Your task to perform on an android device: find which apps use the phone's location Image 0: 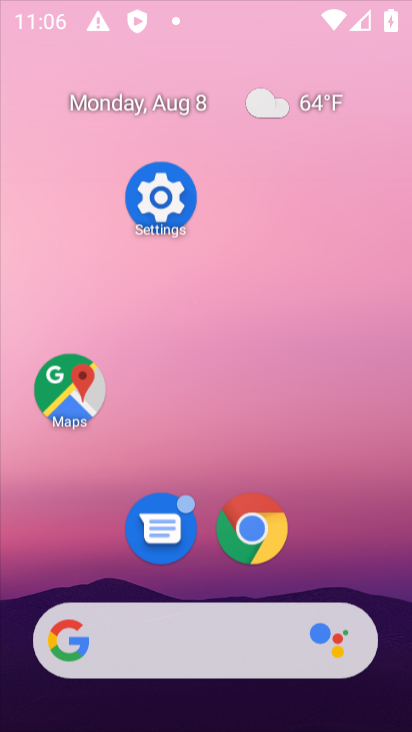
Step 0: drag from (165, 146) to (69, 119)
Your task to perform on an android device: find which apps use the phone's location Image 1: 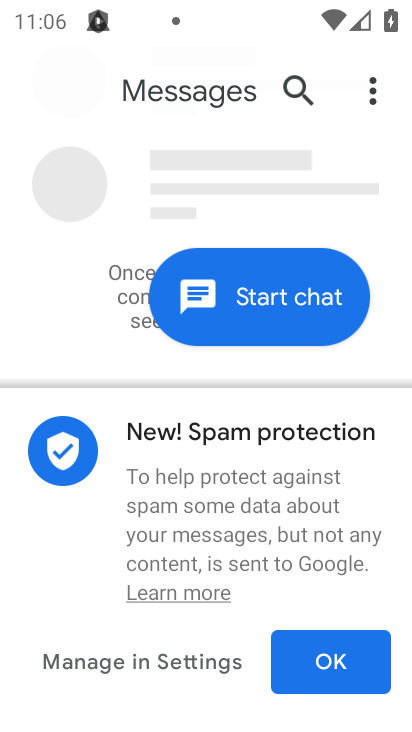
Step 1: drag from (209, 539) to (126, 15)
Your task to perform on an android device: find which apps use the phone's location Image 2: 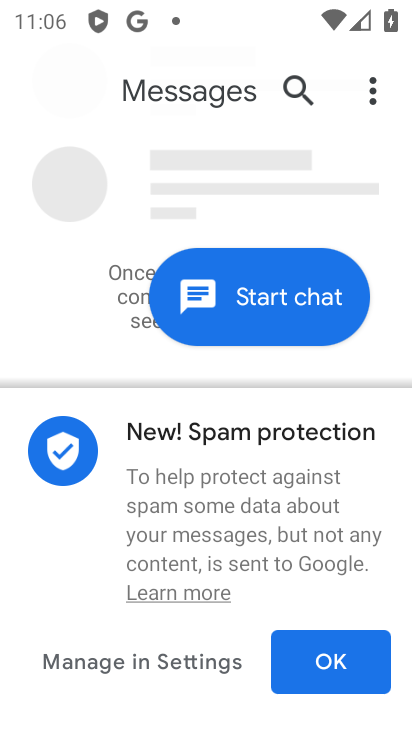
Step 2: drag from (239, 448) to (249, 150)
Your task to perform on an android device: find which apps use the phone's location Image 3: 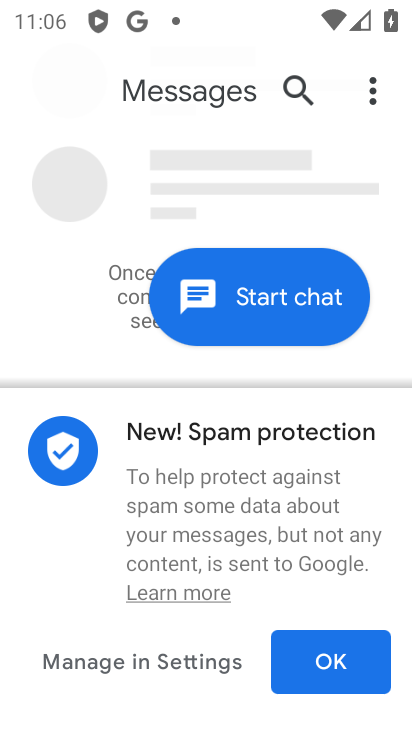
Step 3: press back button
Your task to perform on an android device: find which apps use the phone's location Image 4: 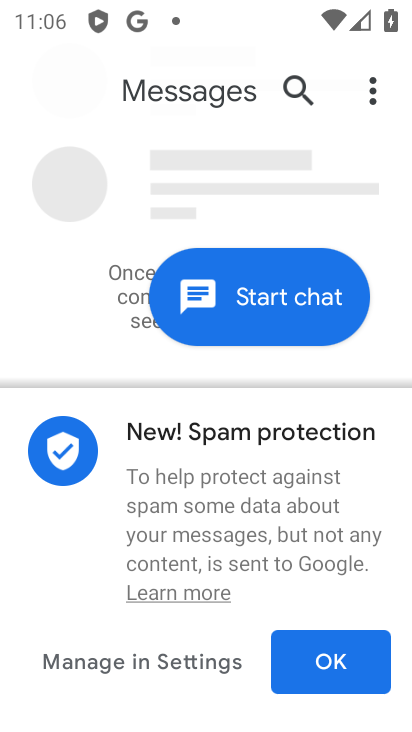
Step 4: press back button
Your task to perform on an android device: find which apps use the phone's location Image 5: 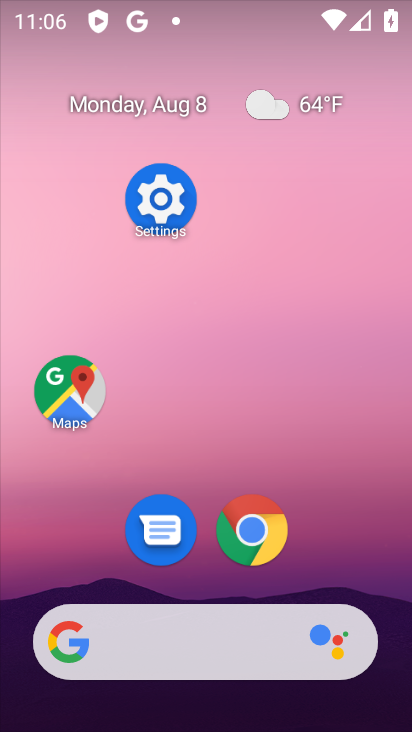
Step 5: drag from (265, 692) to (210, 302)
Your task to perform on an android device: find which apps use the phone's location Image 6: 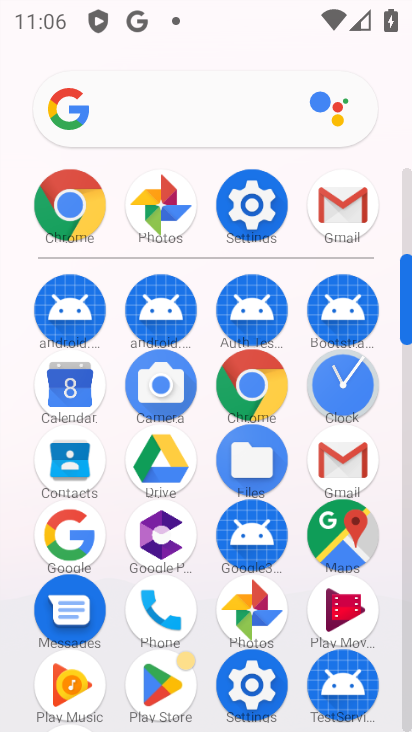
Step 6: click (243, 215)
Your task to perform on an android device: find which apps use the phone's location Image 7: 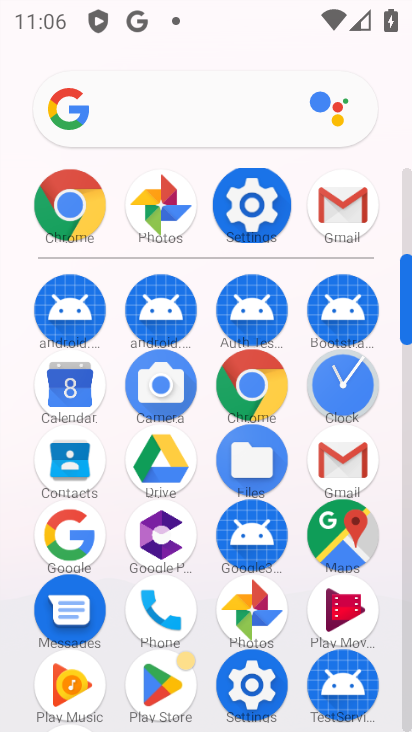
Step 7: click (242, 213)
Your task to perform on an android device: find which apps use the phone's location Image 8: 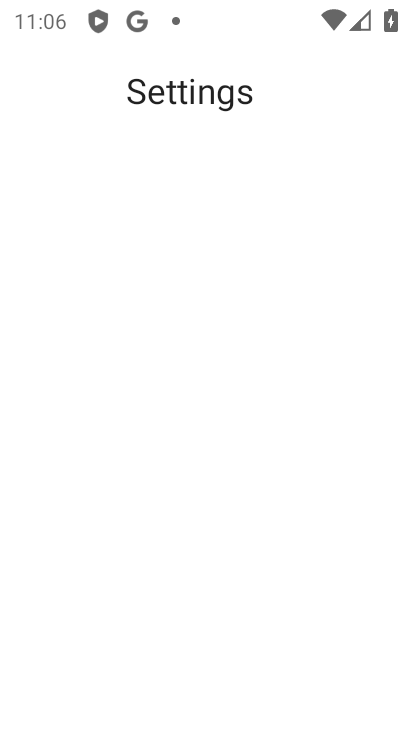
Step 8: click (244, 212)
Your task to perform on an android device: find which apps use the phone's location Image 9: 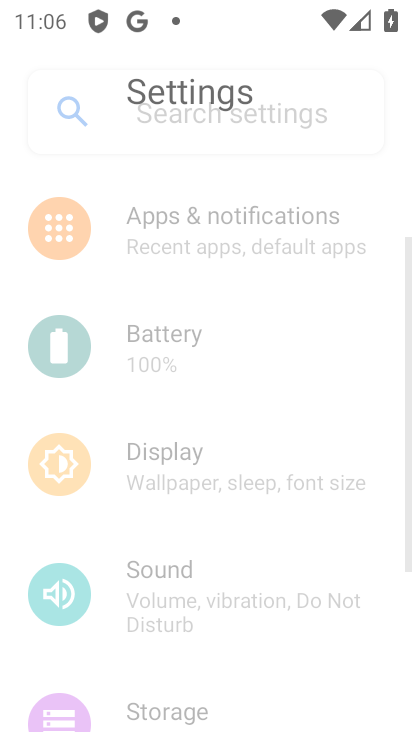
Step 9: click (246, 213)
Your task to perform on an android device: find which apps use the phone's location Image 10: 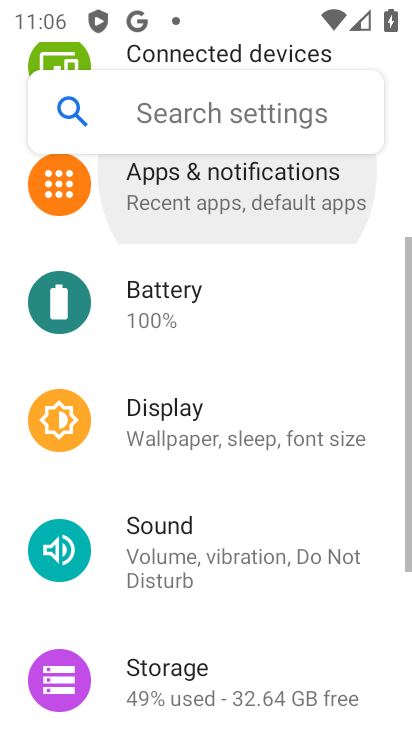
Step 10: click (247, 216)
Your task to perform on an android device: find which apps use the phone's location Image 11: 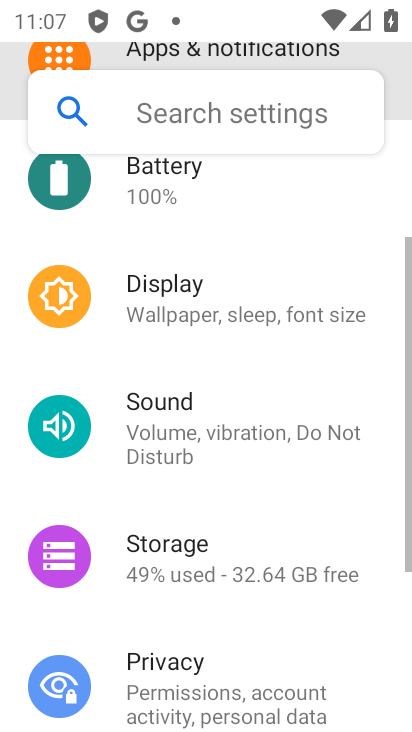
Step 11: drag from (179, 511) to (182, 100)
Your task to perform on an android device: find which apps use the phone's location Image 12: 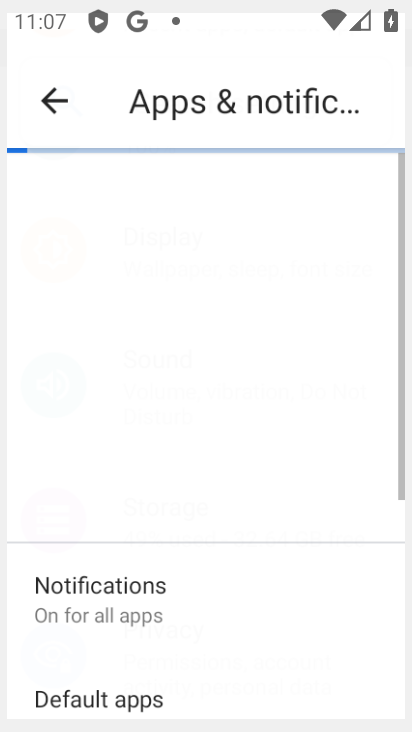
Step 12: drag from (264, 583) to (214, 229)
Your task to perform on an android device: find which apps use the phone's location Image 13: 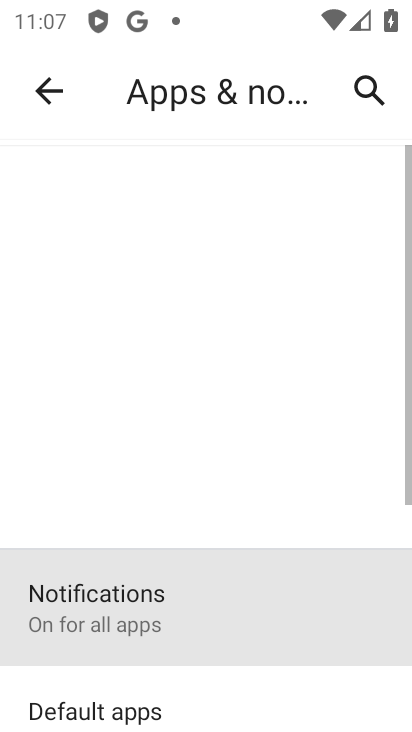
Step 13: drag from (226, 481) to (193, 259)
Your task to perform on an android device: find which apps use the phone's location Image 14: 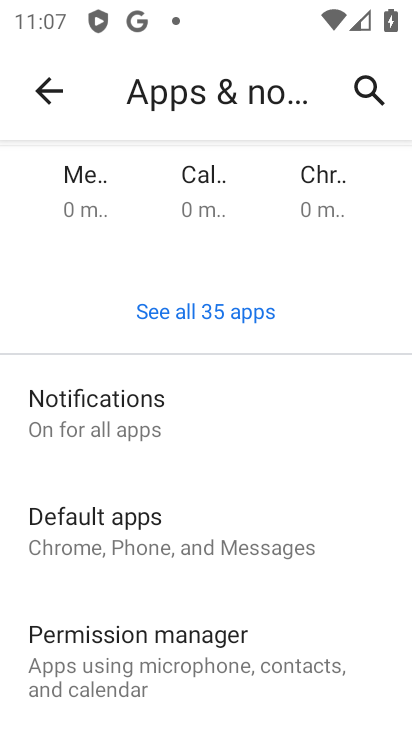
Step 14: click (53, 96)
Your task to perform on an android device: find which apps use the phone's location Image 15: 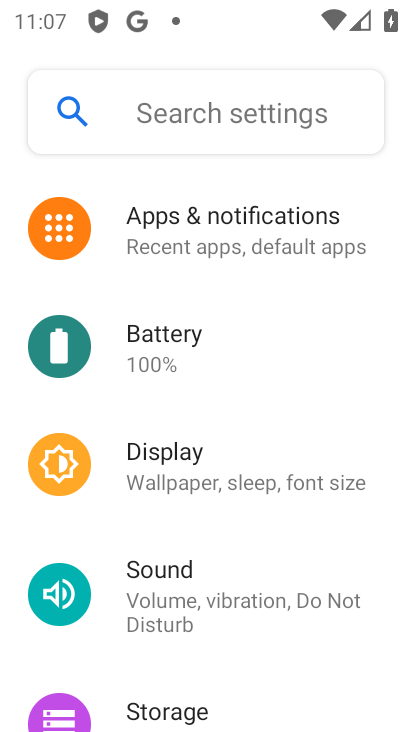
Step 15: drag from (235, 566) to (195, 300)
Your task to perform on an android device: find which apps use the phone's location Image 16: 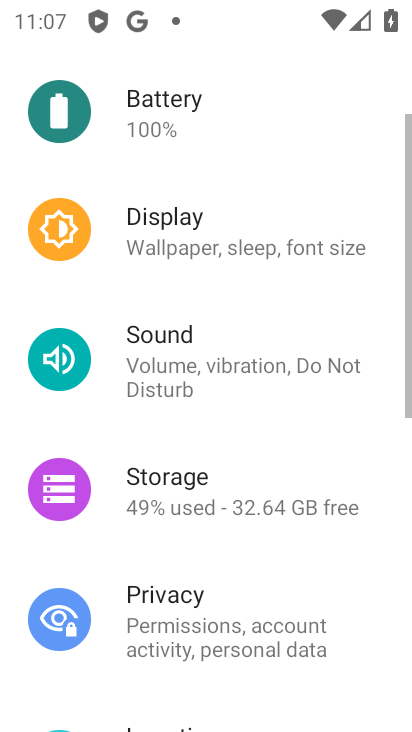
Step 16: drag from (216, 510) to (196, 325)
Your task to perform on an android device: find which apps use the phone's location Image 17: 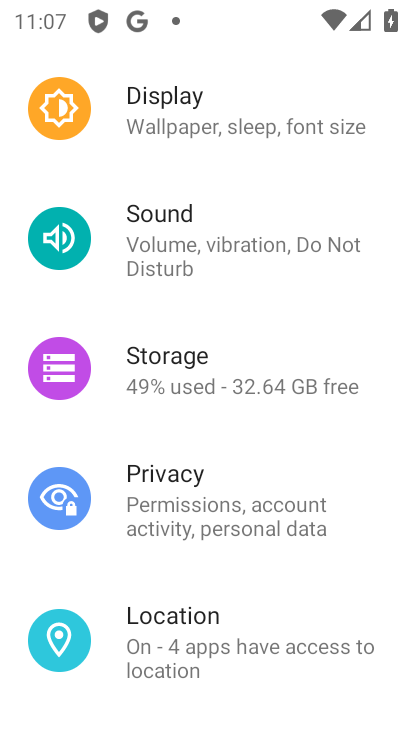
Step 17: click (203, 384)
Your task to perform on an android device: find which apps use the phone's location Image 18: 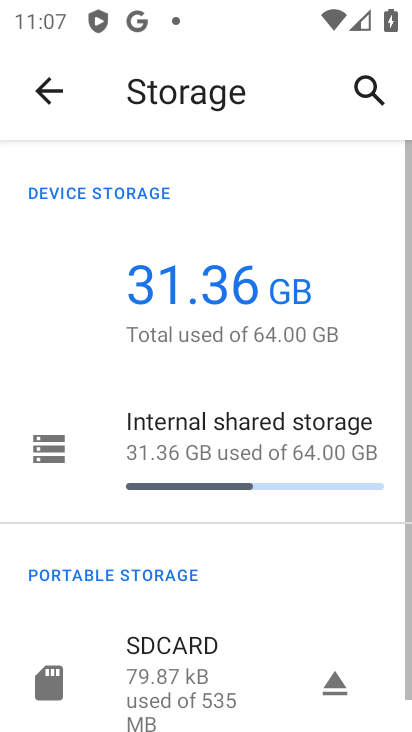
Step 18: click (166, 635)
Your task to perform on an android device: find which apps use the phone's location Image 19: 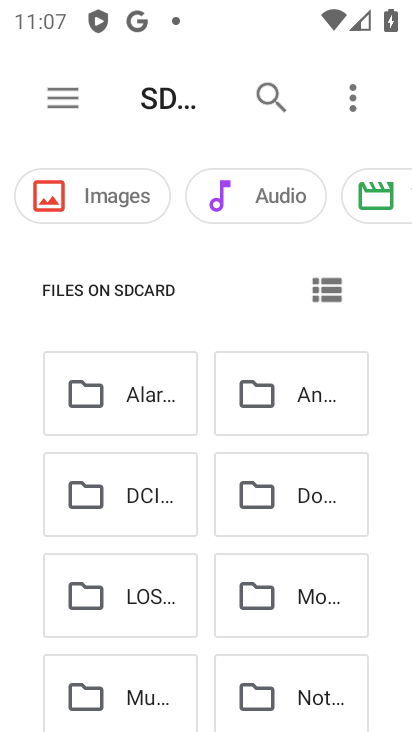
Step 19: press back button
Your task to perform on an android device: find which apps use the phone's location Image 20: 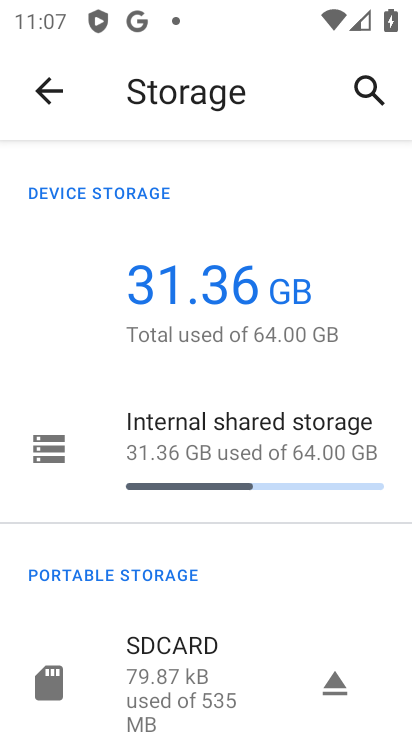
Step 20: click (52, 94)
Your task to perform on an android device: find which apps use the phone's location Image 21: 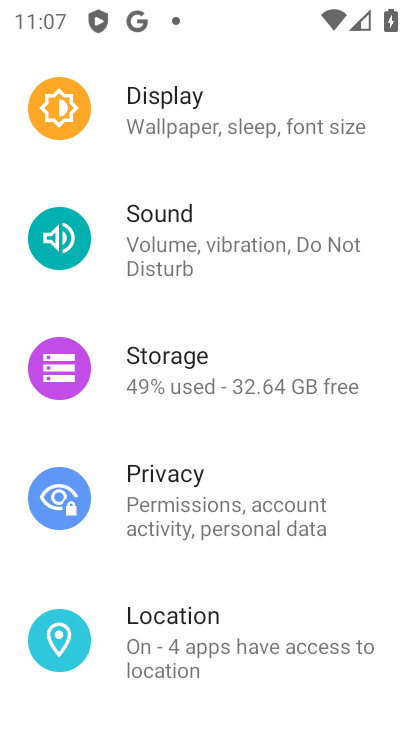
Step 21: click (176, 640)
Your task to perform on an android device: find which apps use the phone's location Image 22: 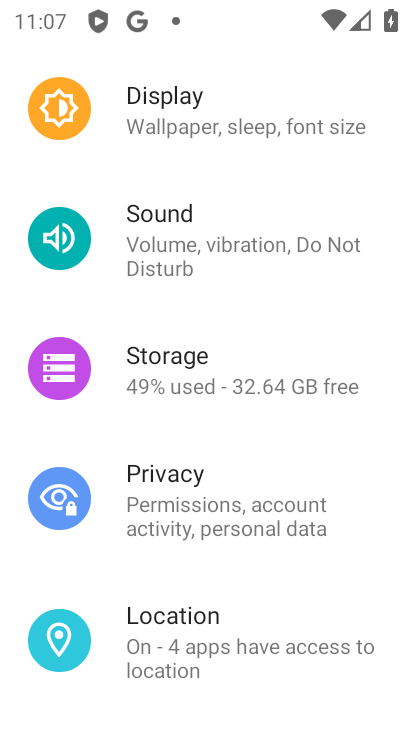
Step 22: click (176, 640)
Your task to perform on an android device: find which apps use the phone's location Image 23: 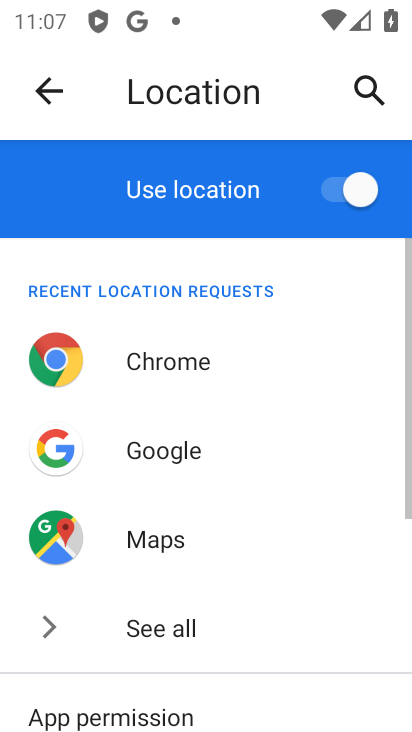
Step 23: drag from (205, 560) to (200, 298)
Your task to perform on an android device: find which apps use the phone's location Image 24: 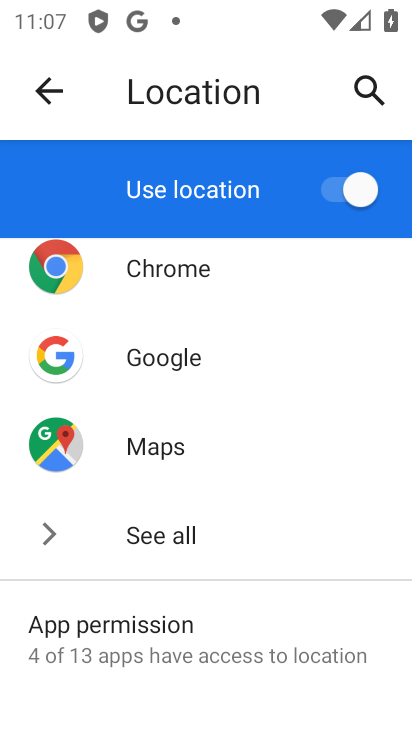
Step 24: drag from (239, 639) to (212, 397)
Your task to perform on an android device: find which apps use the phone's location Image 25: 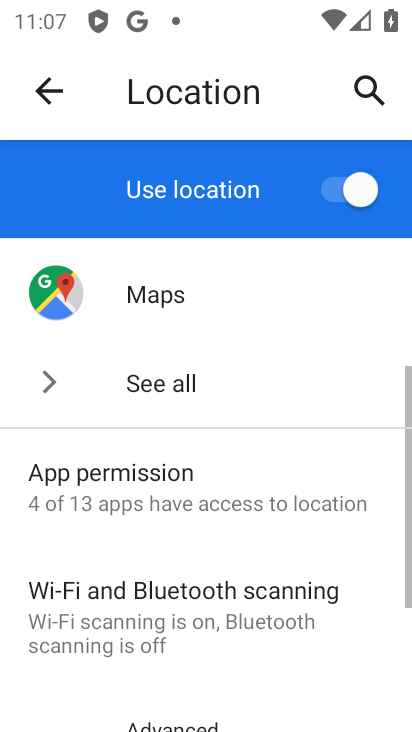
Step 25: drag from (271, 617) to (245, 348)
Your task to perform on an android device: find which apps use the phone's location Image 26: 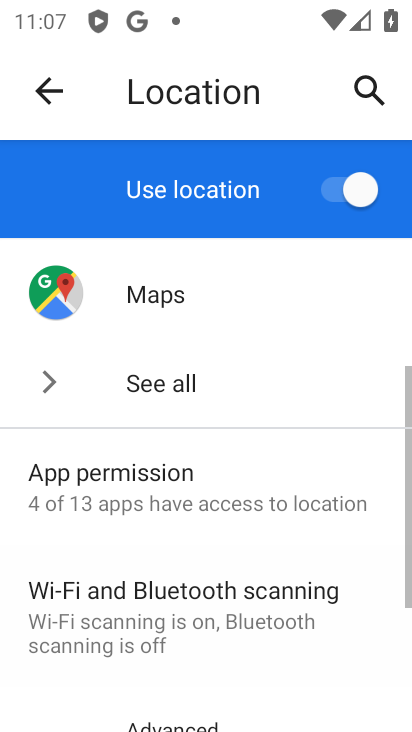
Step 26: drag from (239, 558) to (233, 462)
Your task to perform on an android device: find which apps use the phone's location Image 27: 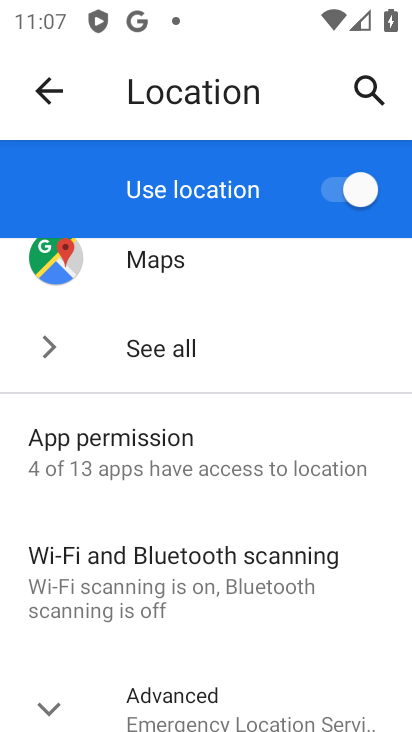
Step 27: drag from (266, 583) to (234, 374)
Your task to perform on an android device: find which apps use the phone's location Image 28: 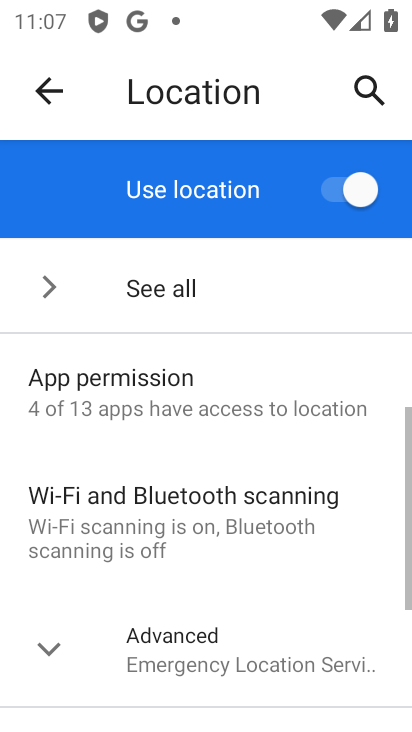
Step 28: drag from (243, 477) to (243, 117)
Your task to perform on an android device: find which apps use the phone's location Image 29: 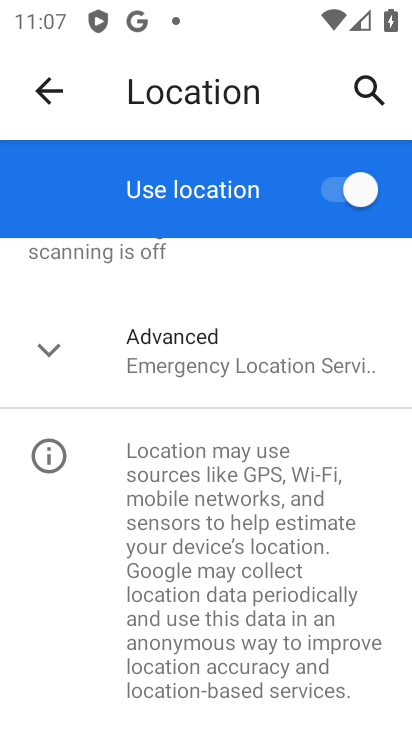
Step 29: click (191, 359)
Your task to perform on an android device: find which apps use the phone's location Image 30: 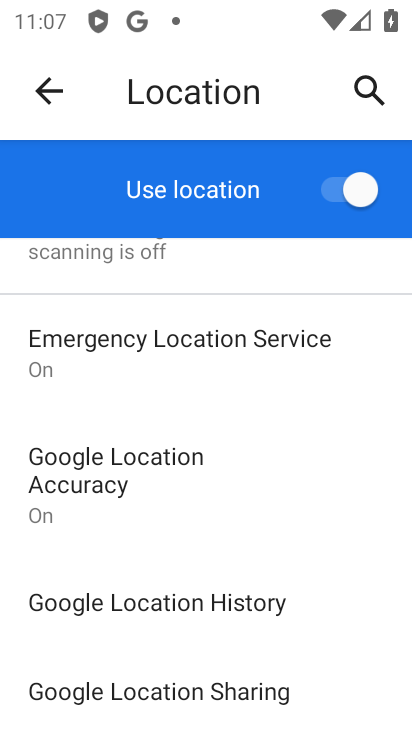
Step 30: drag from (227, 383) to (256, 675)
Your task to perform on an android device: find which apps use the phone's location Image 31: 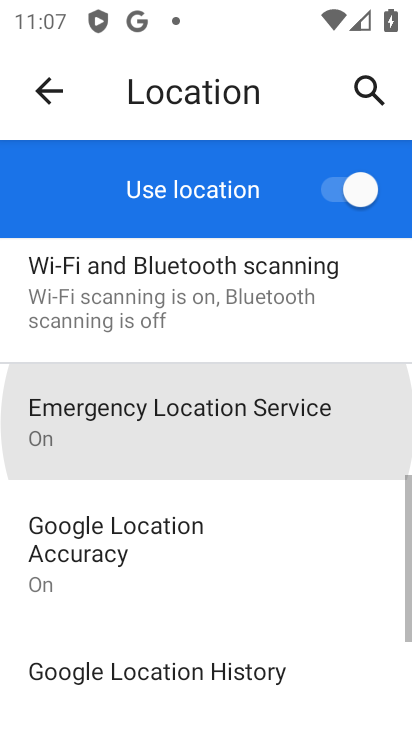
Step 31: drag from (251, 429) to (245, 712)
Your task to perform on an android device: find which apps use the phone's location Image 32: 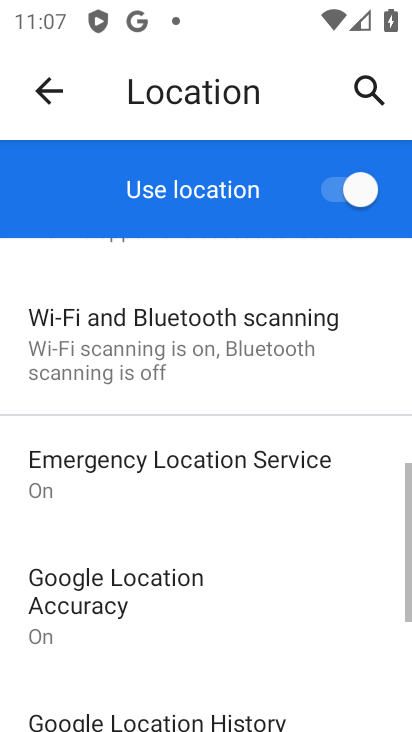
Step 32: drag from (165, 450) to (150, 630)
Your task to perform on an android device: find which apps use the phone's location Image 33: 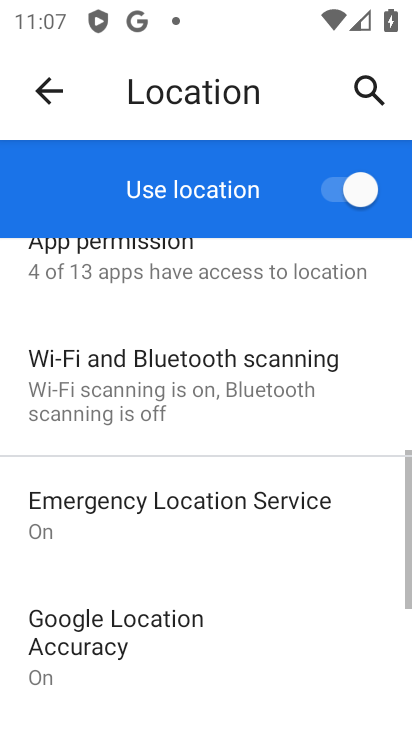
Step 33: drag from (148, 265) to (178, 595)
Your task to perform on an android device: find which apps use the phone's location Image 34: 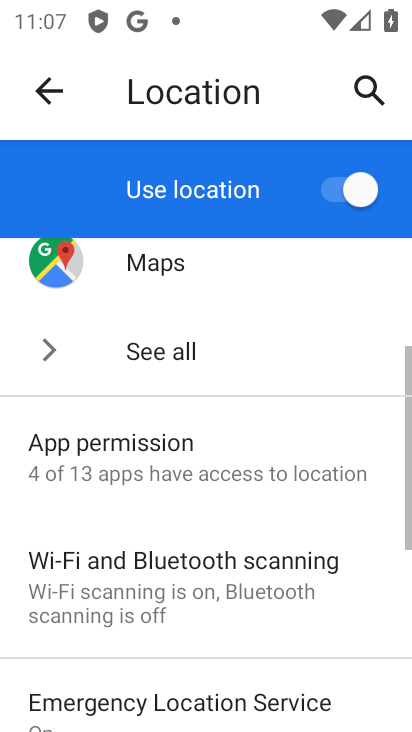
Step 34: drag from (190, 372) to (204, 492)
Your task to perform on an android device: find which apps use the phone's location Image 35: 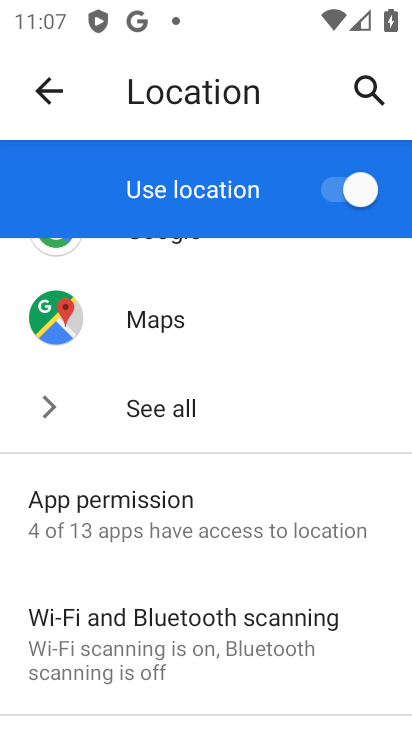
Step 35: click (140, 539)
Your task to perform on an android device: find which apps use the phone's location Image 36: 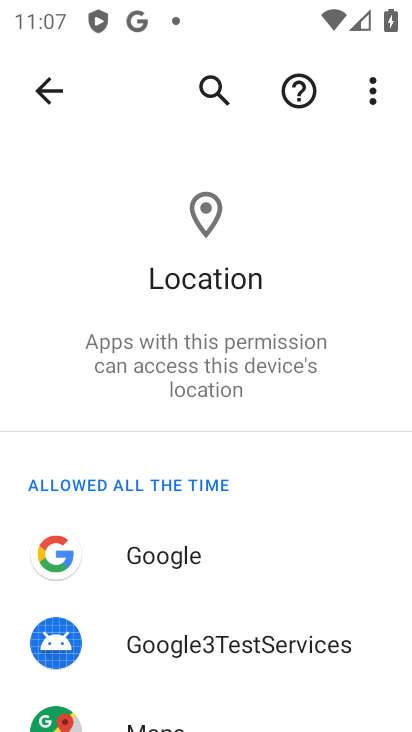
Step 36: task complete